Your task to perform on an android device: change notification settings in the gmail app Image 0: 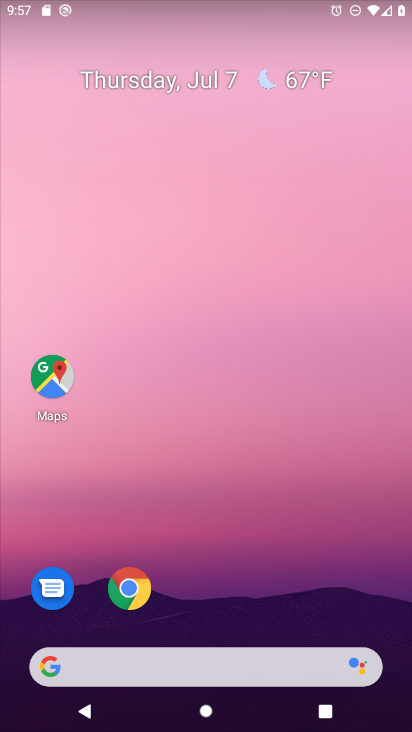
Step 0: drag from (233, 592) to (190, 192)
Your task to perform on an android device: change notification settings in the gmail app Image 1: 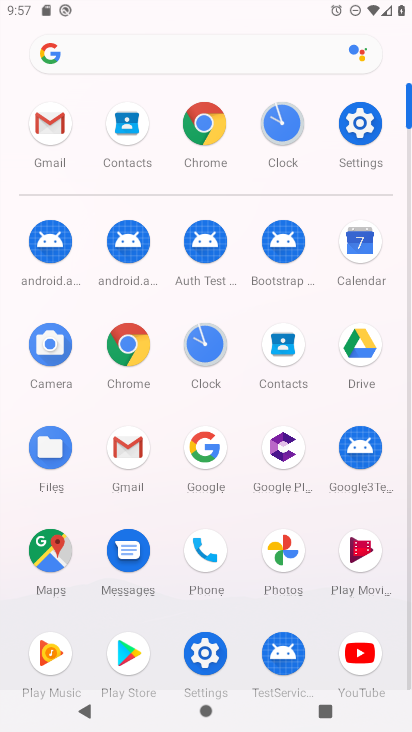
Step 1: click (51, 124)
Your task to perform on an android device: change notification settings in the gmail app Image 2: 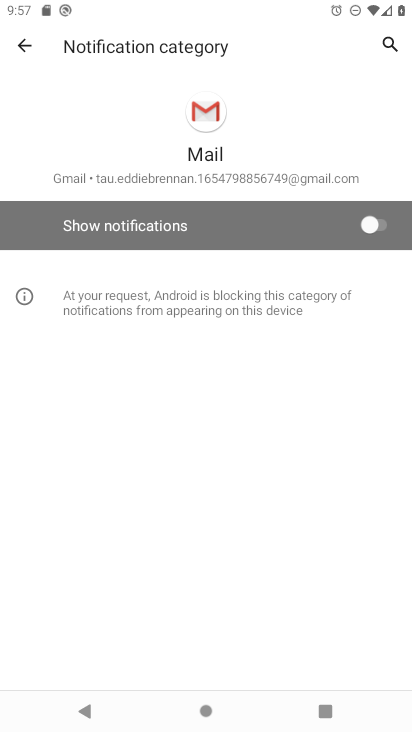
Step 2: click (368, 222)
Your task to perform on an android device: change notification settings in the gmail app Image 3: 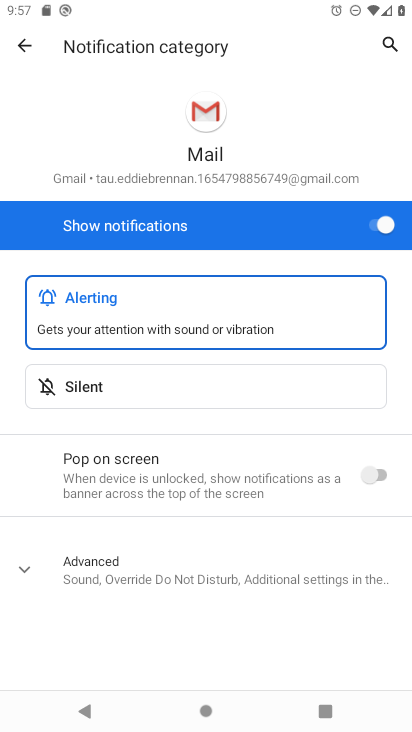
Step 3: task complete